Your task to perform on an android device: toggle notification dots Image 0: 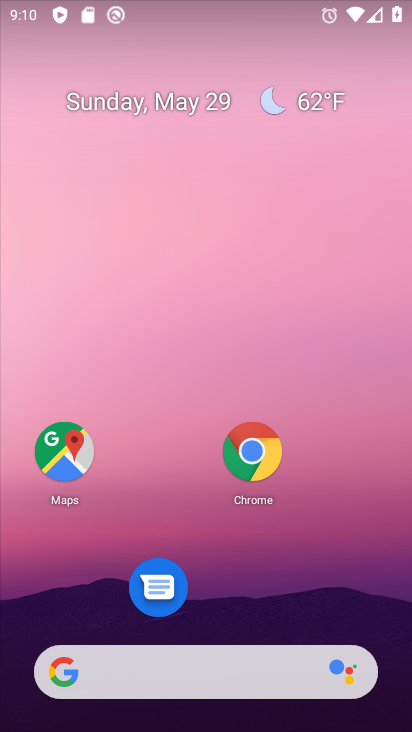
Step 0: drag from (214, 623) to (243, 127)
Your task to perform on an android device: toggle notification dots Image 1: 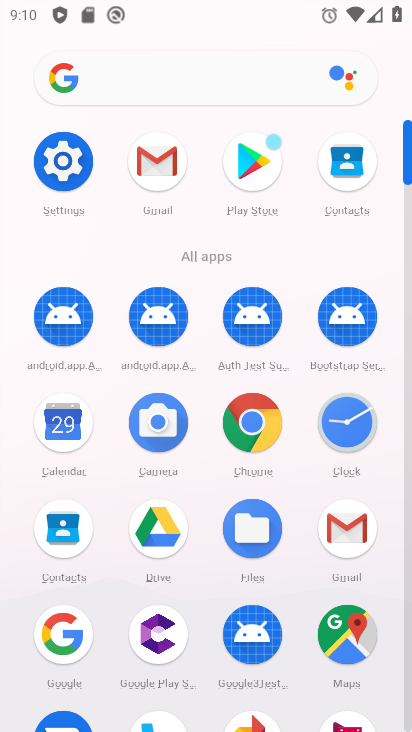
Step 1: click (81, 144)
Your task to perform on an android device: toggle notification dots Image 2: 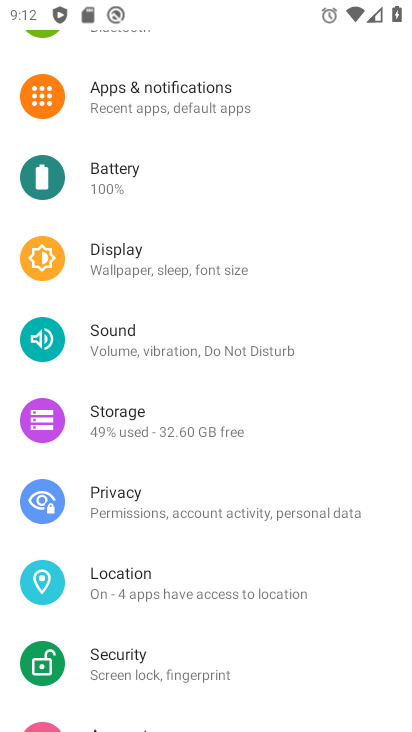
Step 2: click (219, 128)
Your task to perform on an android device: toggle notification dots Image 3: 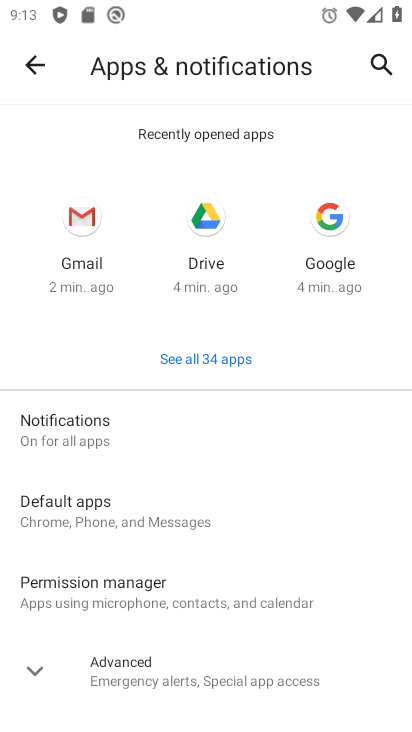
Step 3: drag from (115, 672) to (250, 127)
Your task to perform on an android device: toggle notification dots Image 4: 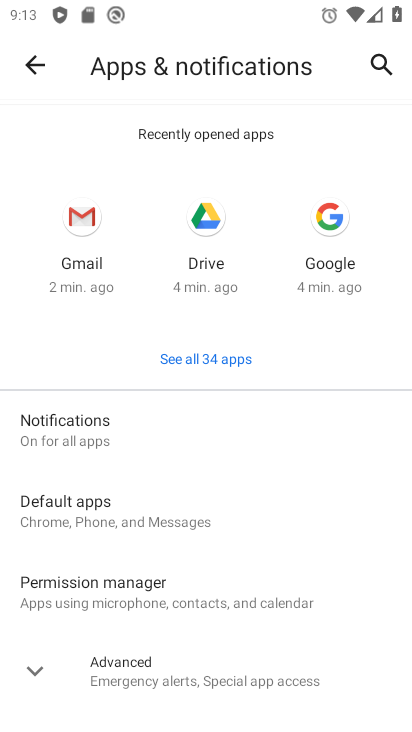
Step 4: click (144, 672)
Your task to perform on an android device: toggle notification dots Image 5: 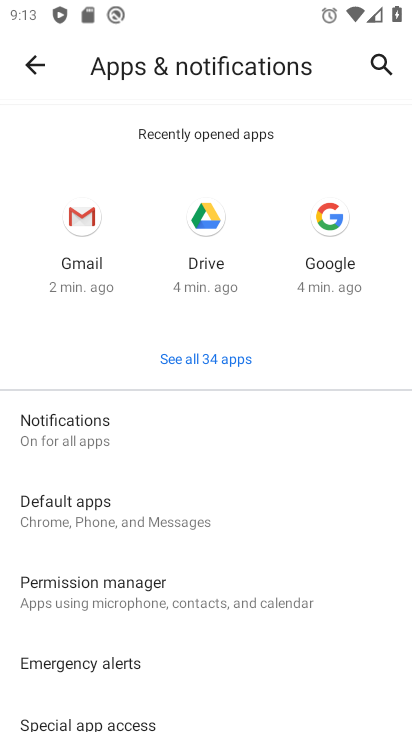
Step 5: drag from (160, 676) to (239, 60)
Your task to perform on an android device: toggle notification dots Image 6: 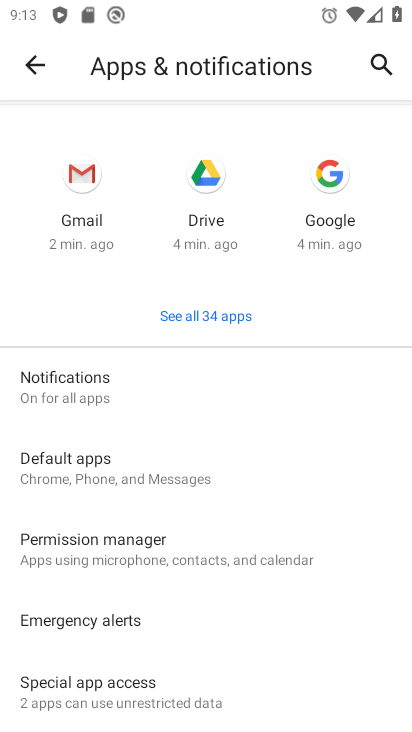
Step 6: click (168, 406)
Your task to perform on an android device: toggle notification dots Image 7: 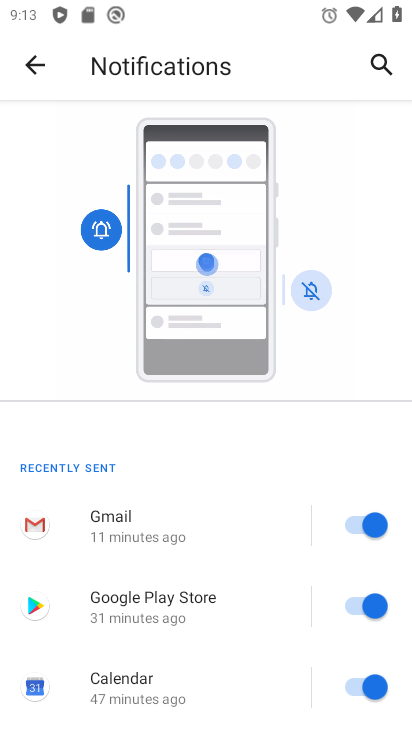
Step 7: drag from (128, 612) to (161, 229)
Your task to perform on an android device: toggle notification dots Image 8: 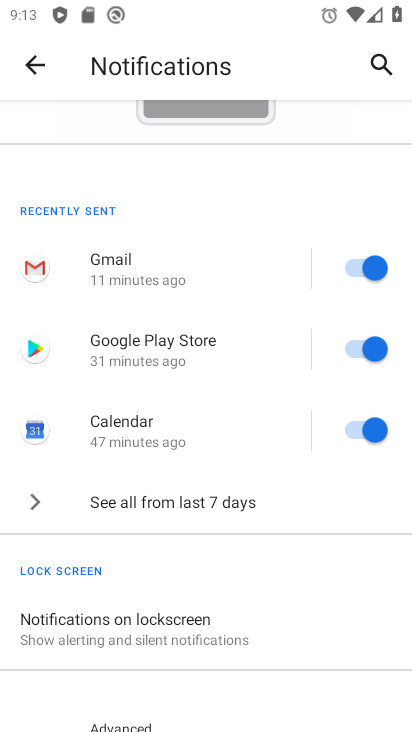
Step 8: drag from (137, 629) to (188, 155)
Your task to perform on an android device: toggle notification dots Image 9: 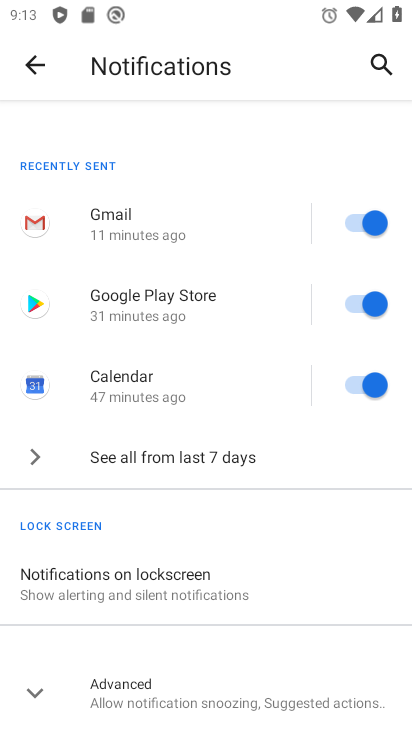
Step 9: click (176, 578)
Your task to perform on an android device: toggle notification dots Image 10: 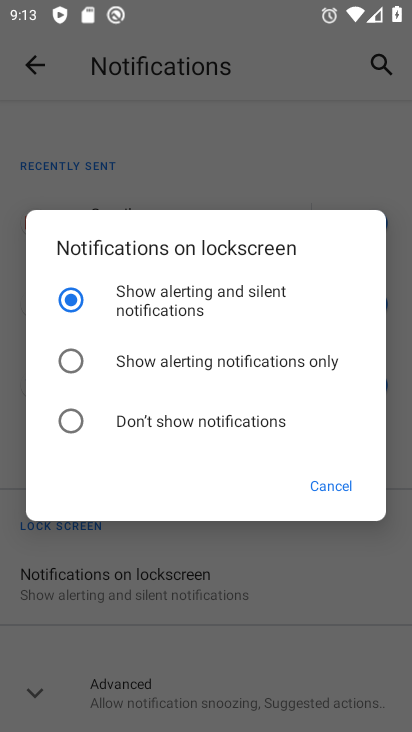
Step 10: click (341, 484)
Your task to perform on an android device: toggle notification dots Image 11: 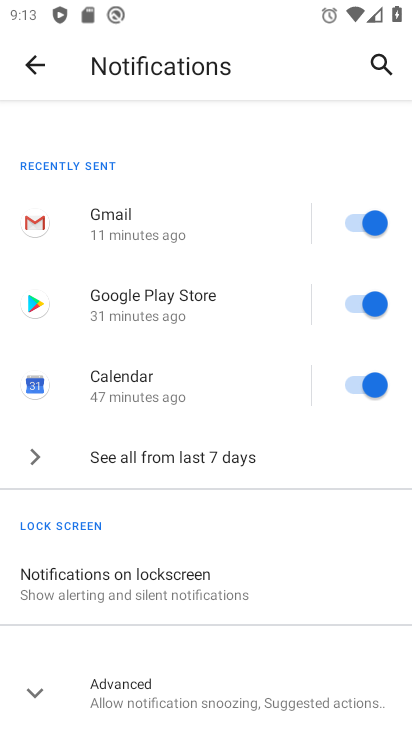
Step 11: drag from (132, 570) to (208, 72)
Your task to perform on an android device: toggle notification dots Image 12: 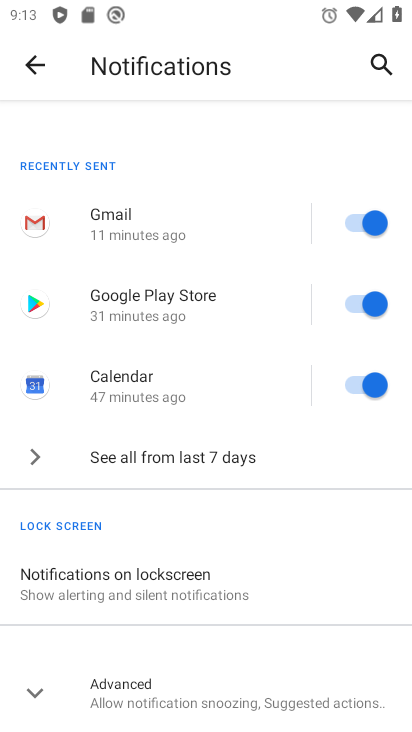
Step 12: click (158, 695)
Your task to perform on an android device: toggle notification dots Image 13: 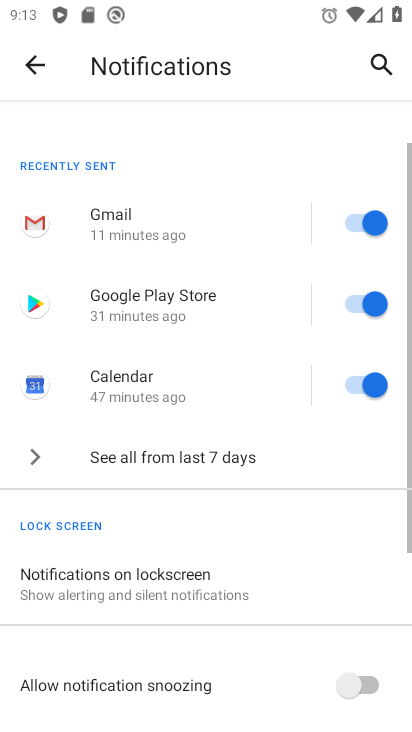
Step 13: drag from (158, 695) to (192, 272)
Your task to perform on an android device: toggle notification dots Image 14: 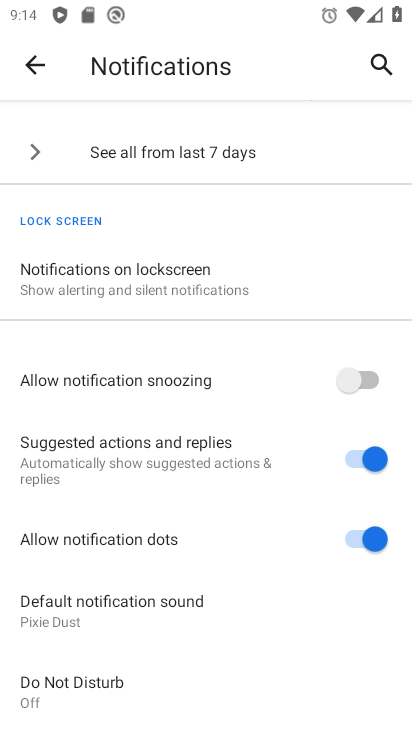
Step 14: click (368, 545)
Your task to perform on an android device: toggle notification dots Image 15: 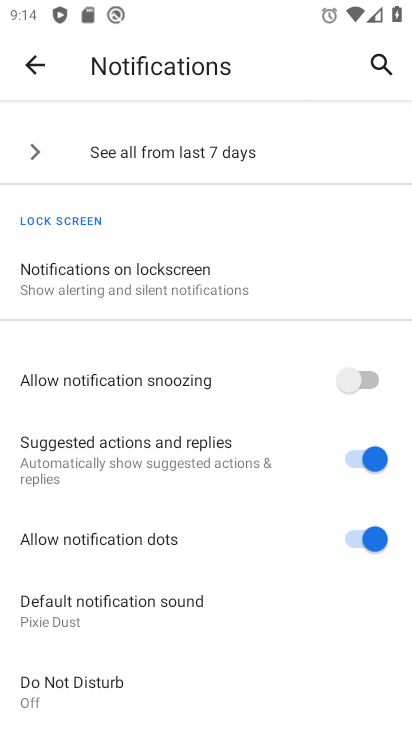
Step 15: click (368, 545)
Your task to perform on an android device: toggle notification dots Image 16: 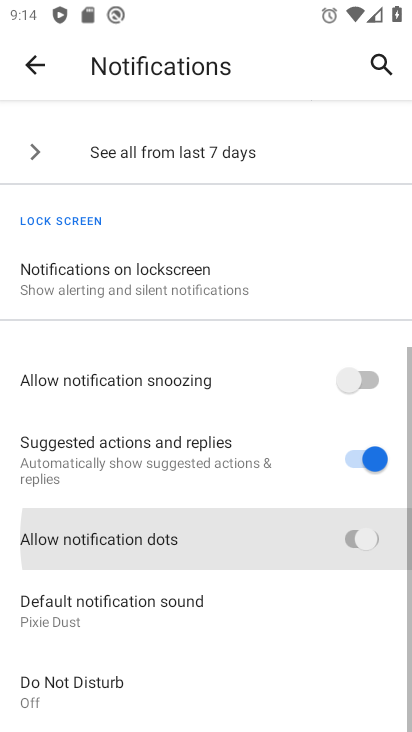
Step 16: click (368, 545)
Your task to perform on an android device: toggle notification dots Image 17: 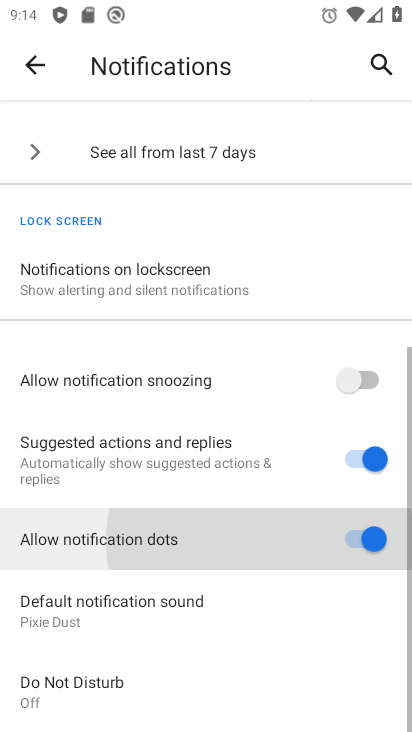
Step 17: click (368, 545)
Your task to perform on an android device: toggle notification dots Image 18: 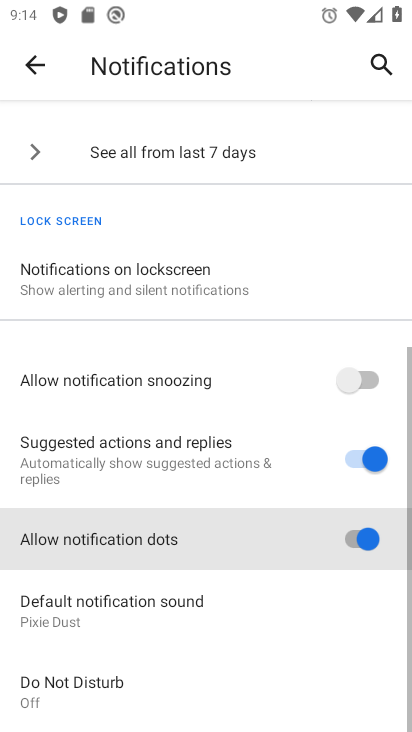
Step 18: click (368, 545)
Your task to perform on an android device: toggle notification dots Image 19: 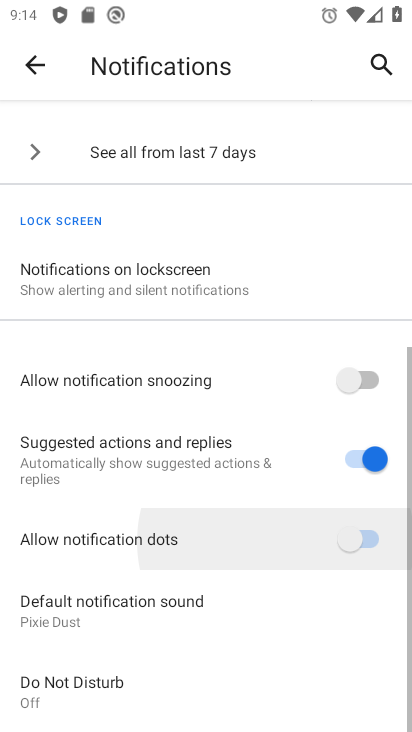
Step 19: click (368, 545)
Your task to perform on an android device: toggle notification dots Image 20: 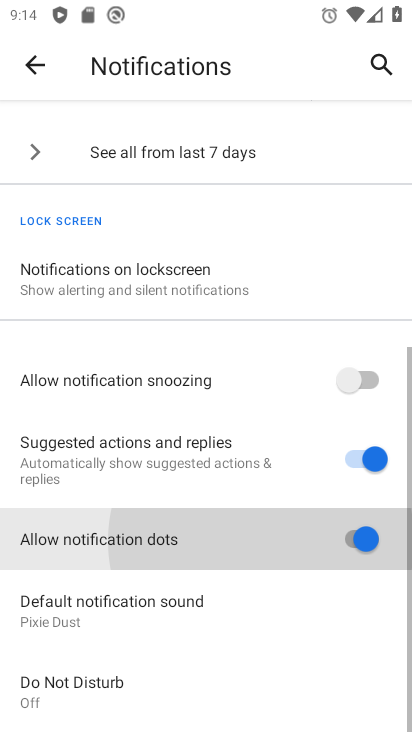
Step 20: click (368, 545)
Your task to perform on an android device: toggle notification dots Image 21: 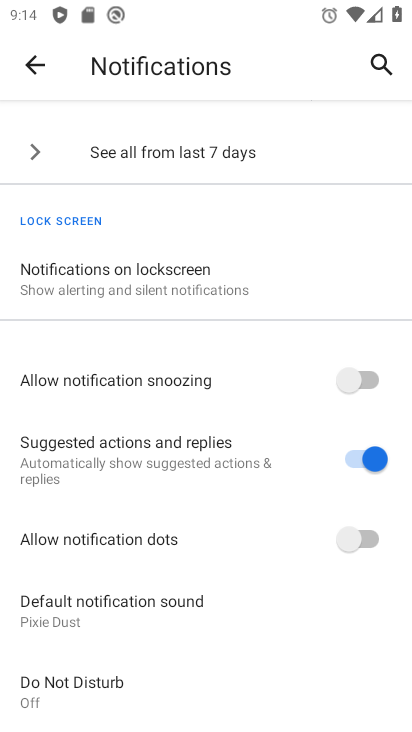
Step 21: drag from (208, 697) to (205, 242)
Your task to perform on an android device: toggle notification dots Image 22: 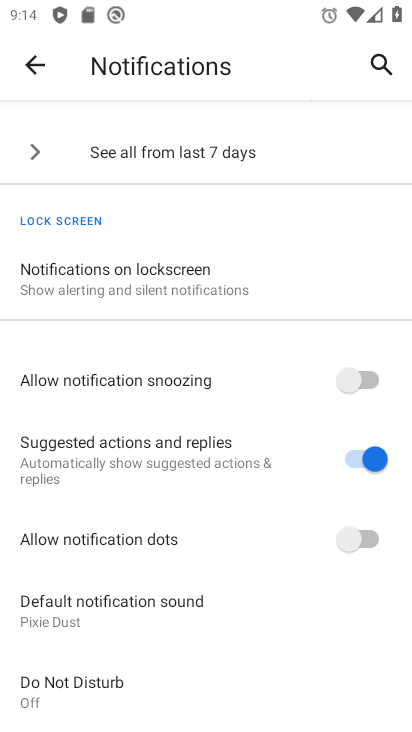
Step 22: drag from (156, 672) to (165, 197)
Your task to perform on an android device: toggle notification dots Image 23: 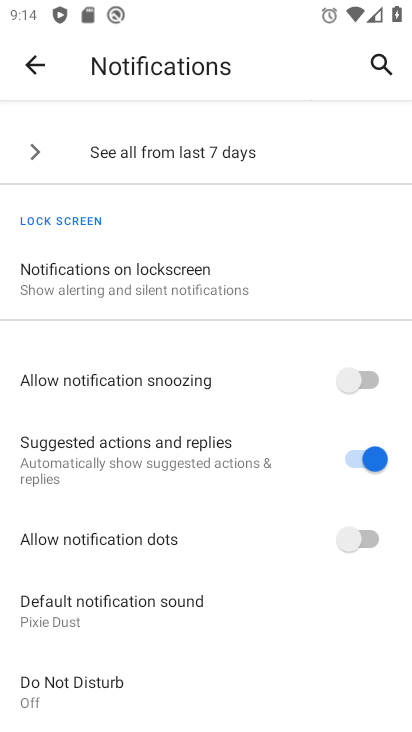
Step 23: drag from (148, 670) to (206, 204)
Your task to perform on an android device: toggle notification dots Image 24: 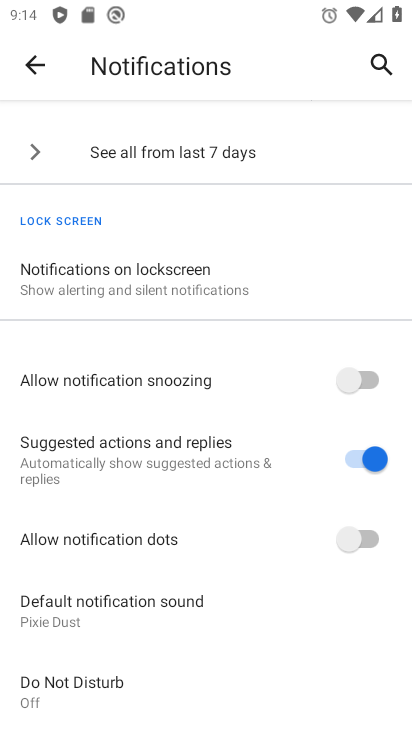
Step 24: click (364, 528)
Your task to perform on an android device: toggle notification dots Image 25: 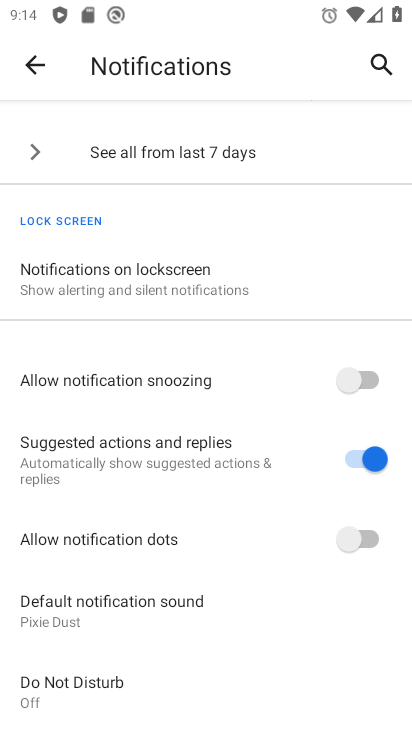
Step 25: click (364, 528)
Your task to perform on an android device: toggle notification dots Image 26: 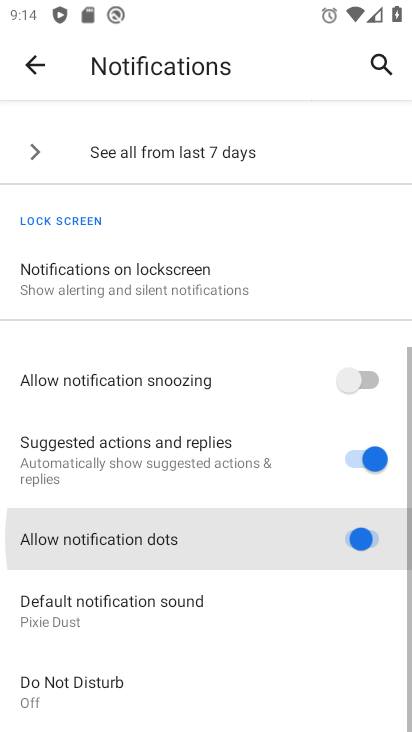
Step 26: click (364, 528)
Your task to perform on an android device: toggle notification dots Image 27: 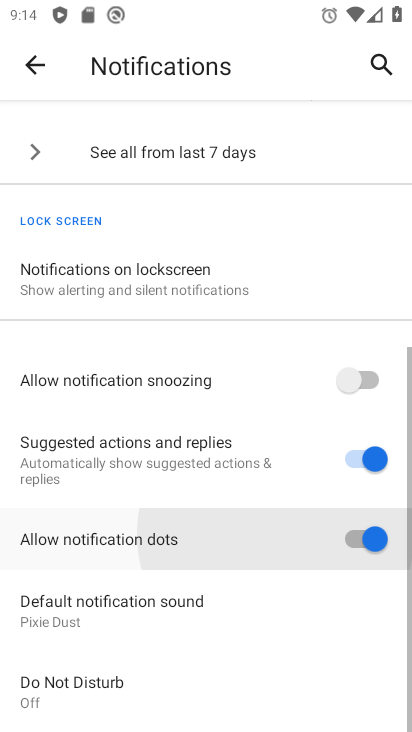
Step 27: click (364, 528)
Your task to perform on an android device: toggle notification dots Image 28: 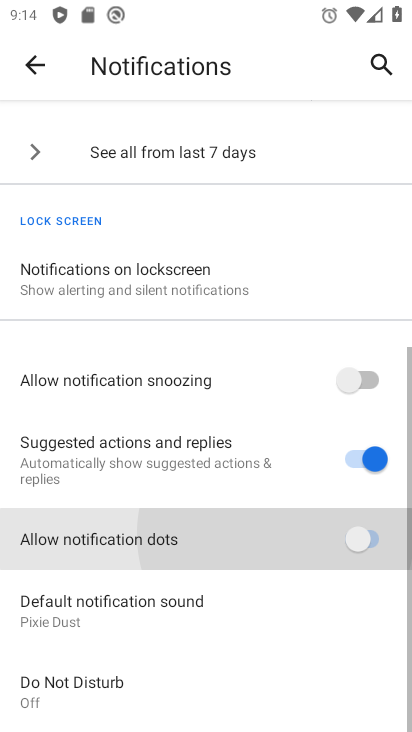
Step 28: click (364, 528)
Your task to perform on an android device: toggle notification dots Image 29: 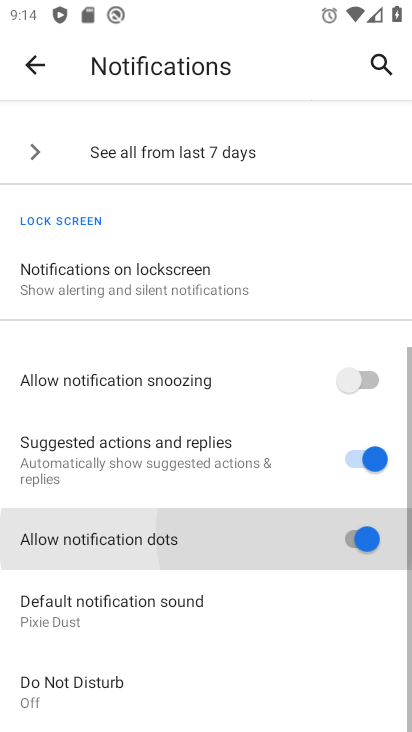
Step 29: click (364, 528)
Your task to perform on an android device: toggle notification dots Image 30: 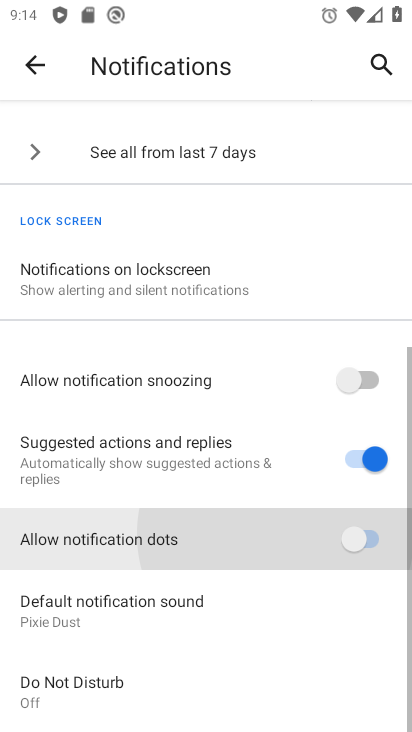
Step 30: click (364, 528)
Your task to perform on an android device: toggle notification dots Image 31: 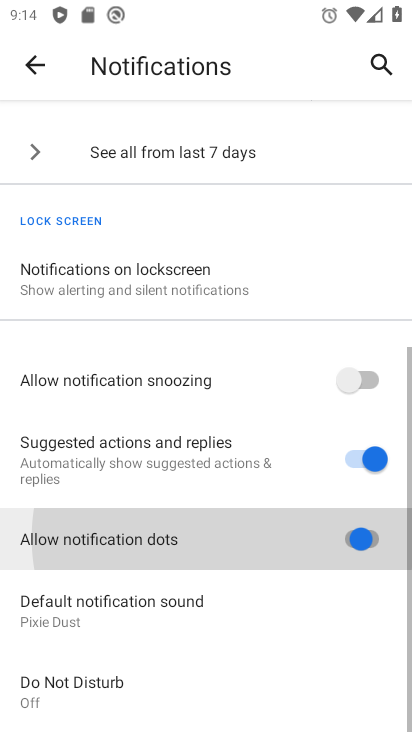
Step 31: click (364, 528)
Your task to perform on an android device: toggle notification dots Image 32: 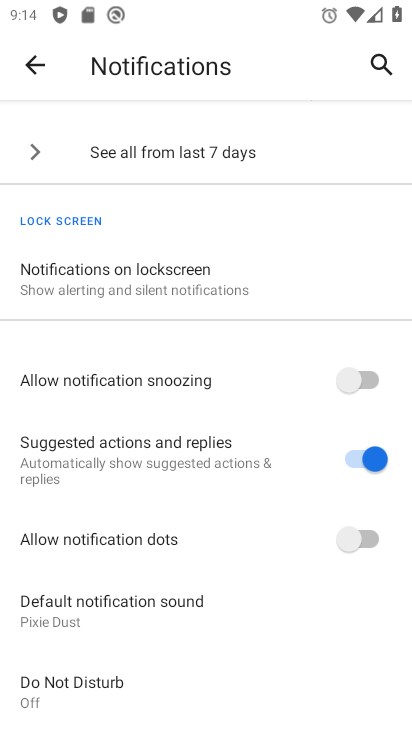
Step 32: task complete